Your task to perform on an android device: Go to wifi settings Image 0: 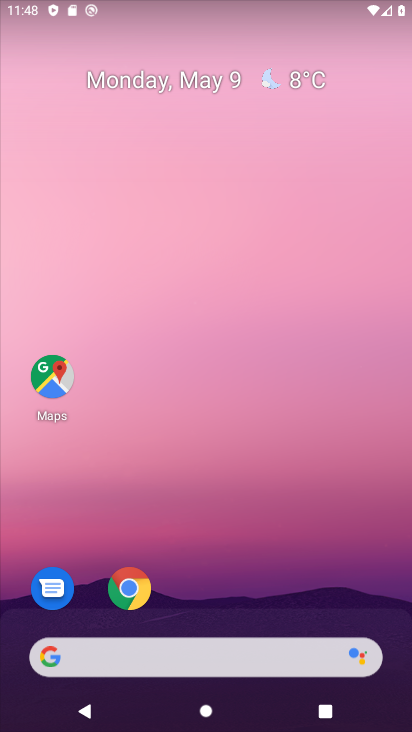
Step 0: drag from (215, 644) to (290, 182)
Your task to perform on an android device: Go to wifi settings Image 1: 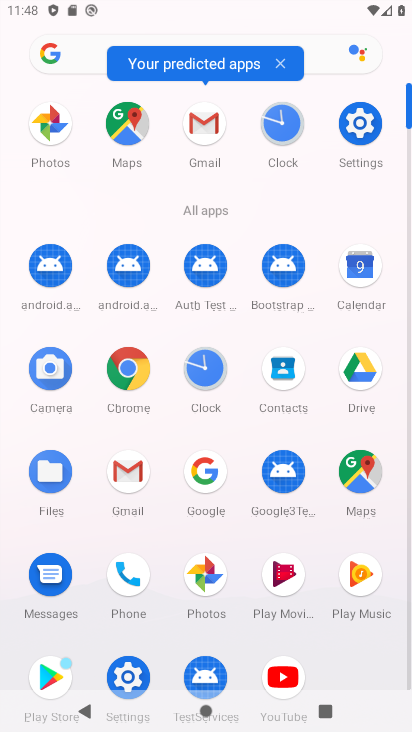
Step 1: click (141, 685)
Your task to perform on an android device: Go to wifi settings Image 2: 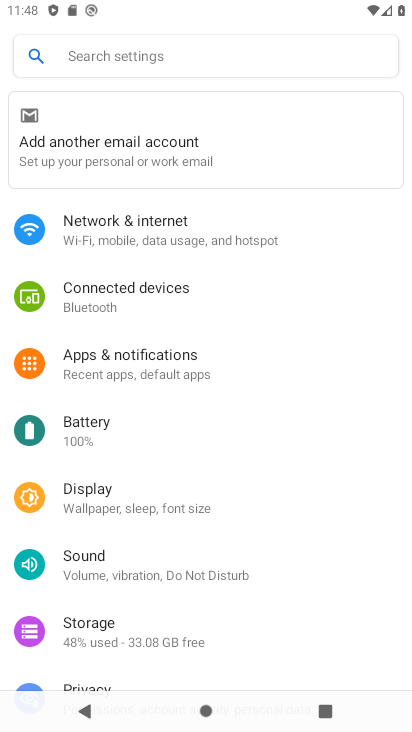
Step 2: click (197, 242)
Your task to perform on an android device: Go to wifi settings Image 3: 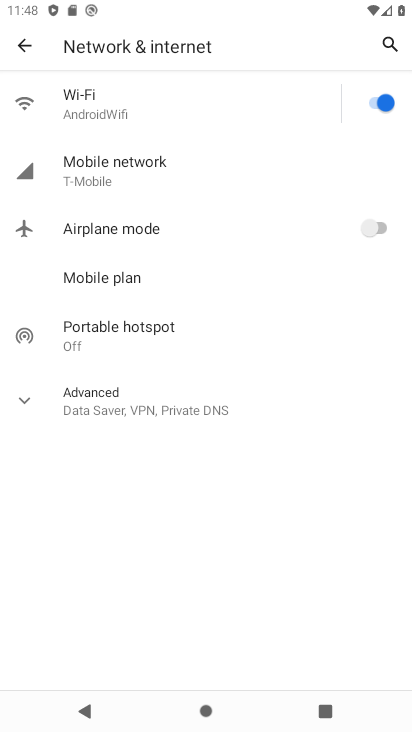
Step 3: click (191, 119)
Your task to perform on an android device: Go to wifi settings Image 4: 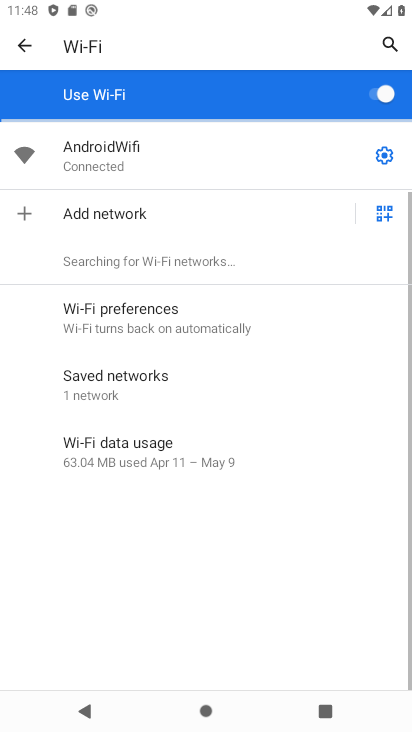
Step 4: task complete